Your task to perform on an android device: Go to network settings Image 0: 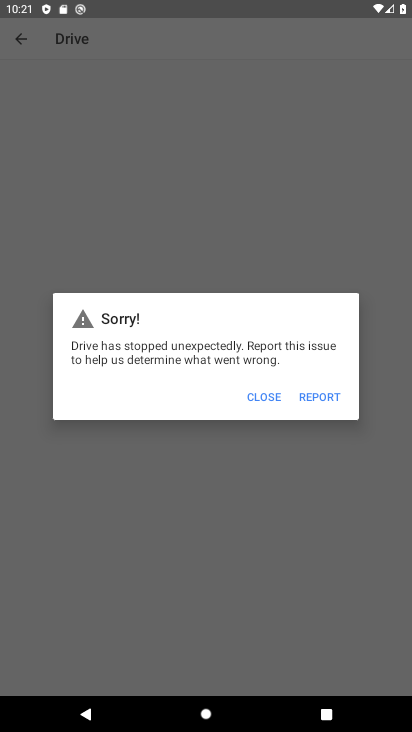
Step 0: press home button
Your task to perform on an android device: Go to network settings Image 1: 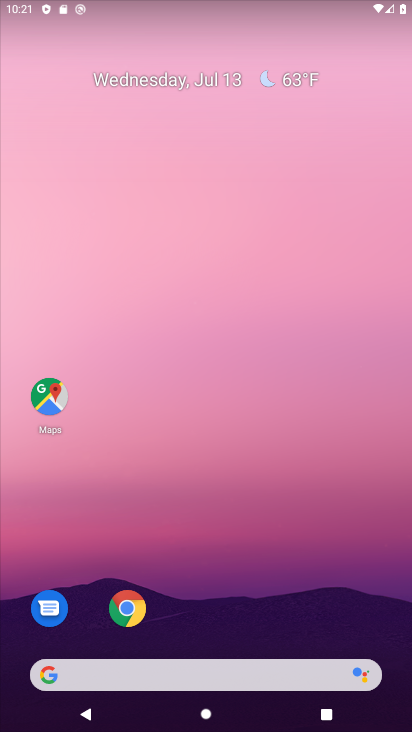
Step 1: drag from (247, 607) to (407, 0)
Your task to perform on an android device: Go to network settings Image 2: 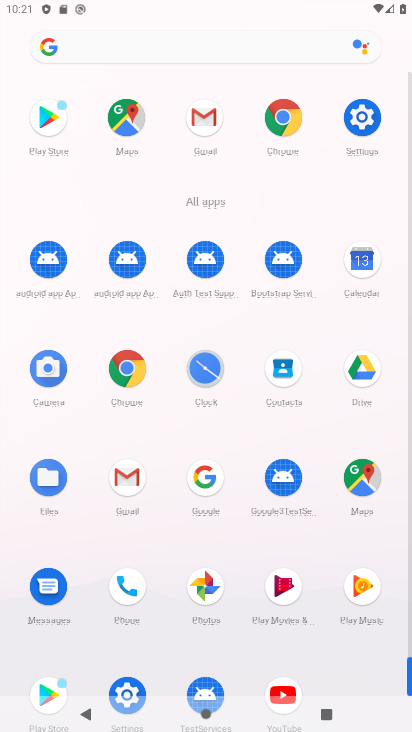
Step 2: click (359, 98)
Your task to perform on an android device: Go to network settings Image 3: 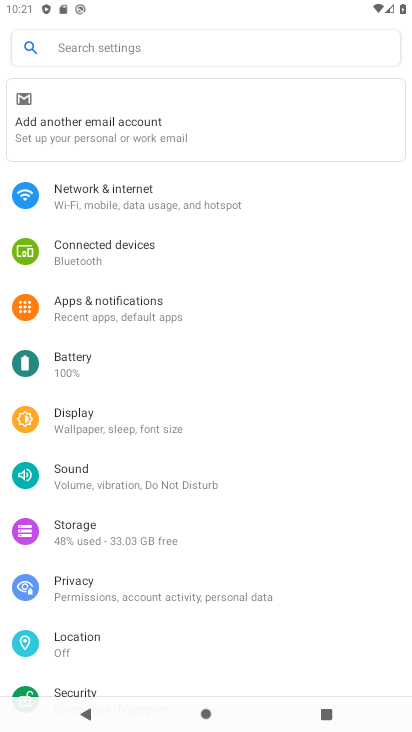
Step 3: click (152, 190)
Your task to perform on an android device: Go to network settings Image 4: 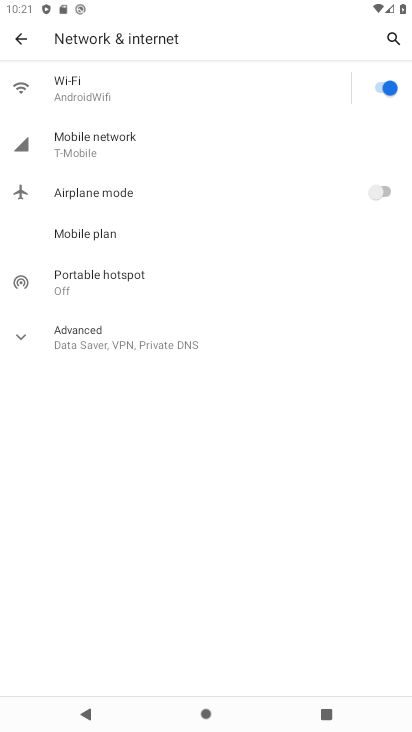
Step 4: task complete